Your task to perform on an android device: Open Youtube and go to the subscriptions tab Image 0: 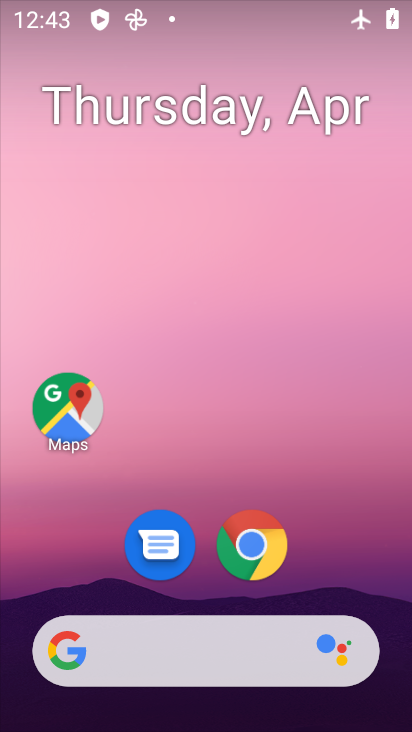
Step 0: drag from (324, 430) to (243, 73)
Your task to perform on an android device: Open Youtube and go to the subscriptions tab Image 1: 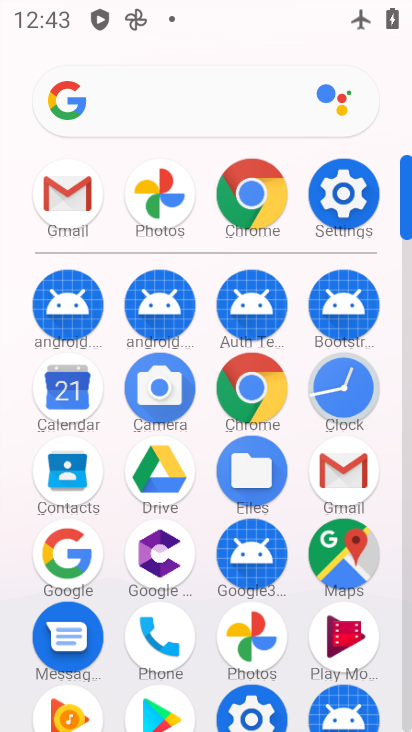
Step 1: drag from (301, 636) to (243, 199)
Your task to perform on an android device: Open Youtube and go to the subscriptions tab Image 2: 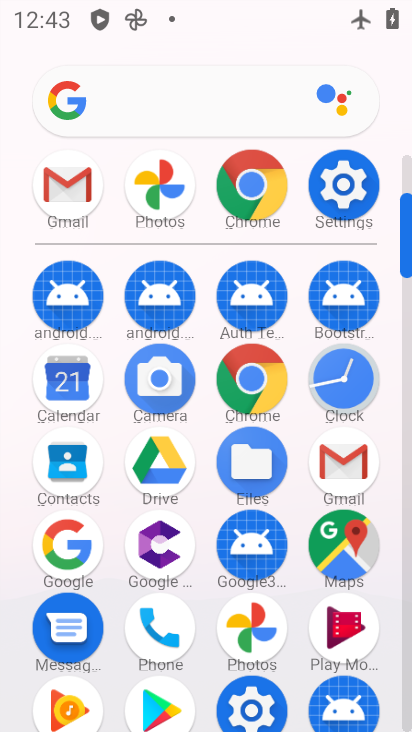
Step 2: drag from (204, 664) to (223, 278)
Your task to perform on an android device: Open Youtube and go to the subscriptions tab Image 3: 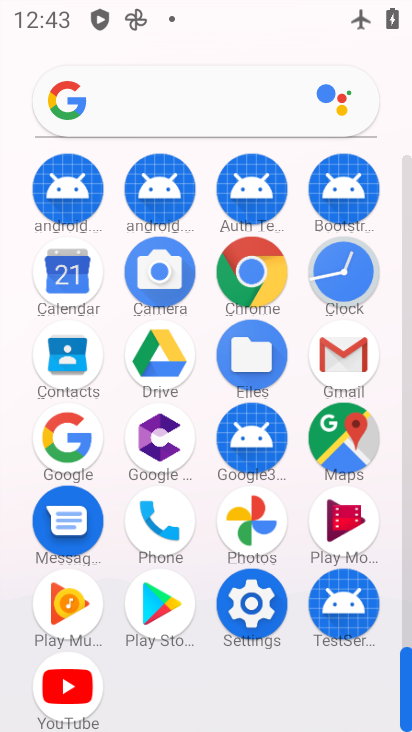
Step 3: click (69, 689)
Your task to perform on an android device: Open Youtube and go to the subscriptions tab Image 4: 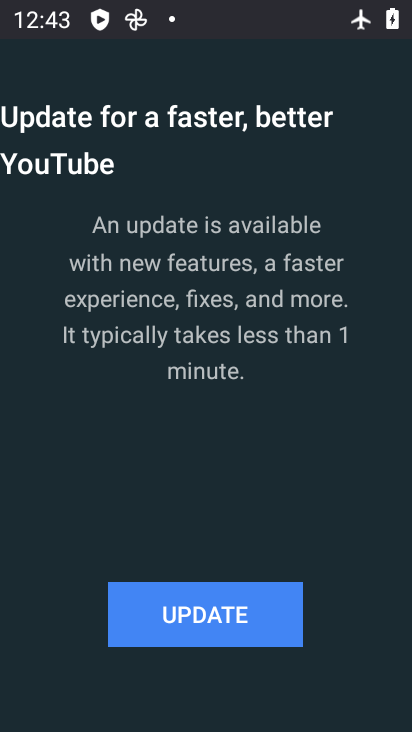
Step 4: task complete